Your task to perform on an android device: Open battery settings Image 0: 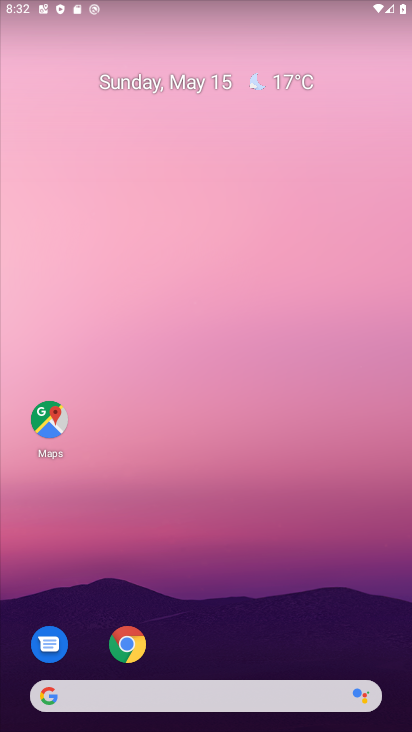
Step 0: drag from (273, 706) to (190, 232)
Your task to perform on an android device: Open battery settings Image 1: 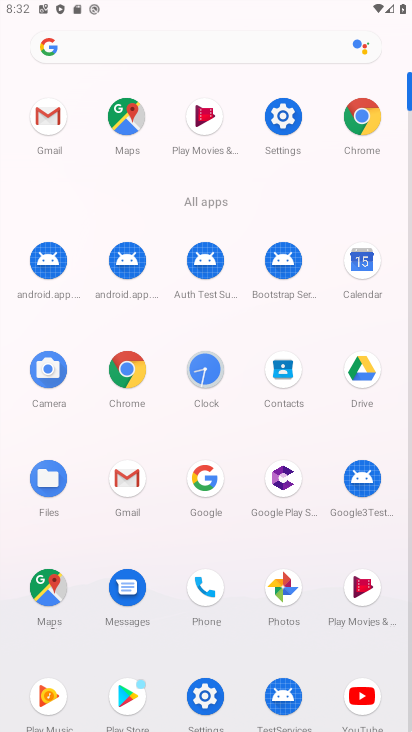
Step 1: click (290, 122)
Your task to perform on an android device: Open battery settings Image 2: 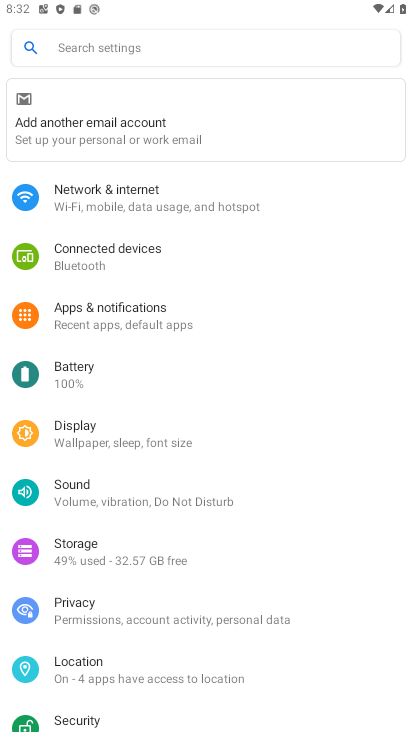
Step 2: click (162, 40)
Your task to perform on an android device: Open battery settings Image 3: 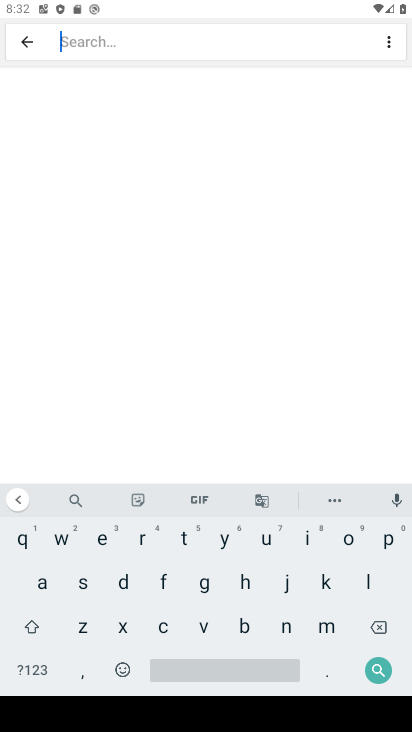
Step 3: click (247, 622)
Your task to perform on an android device: Open battery settings Image 4: 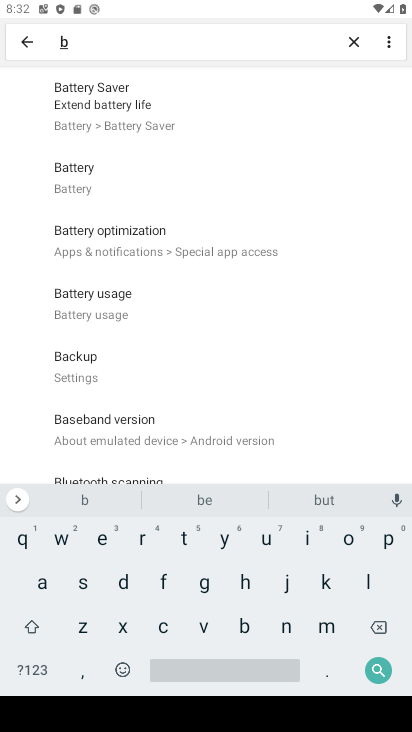
Step 4: click (30, 573)
Your task to perform on an android device: Open battery settings Image 5: 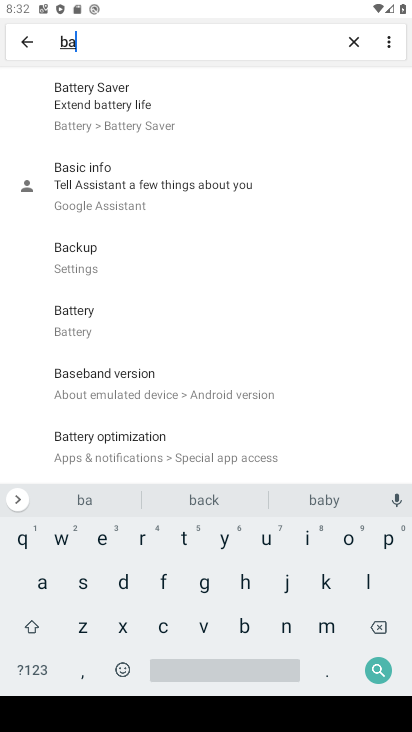
Step 5: click (119, 300)
Your task to perform on an android device: Open battery settings Image 6: 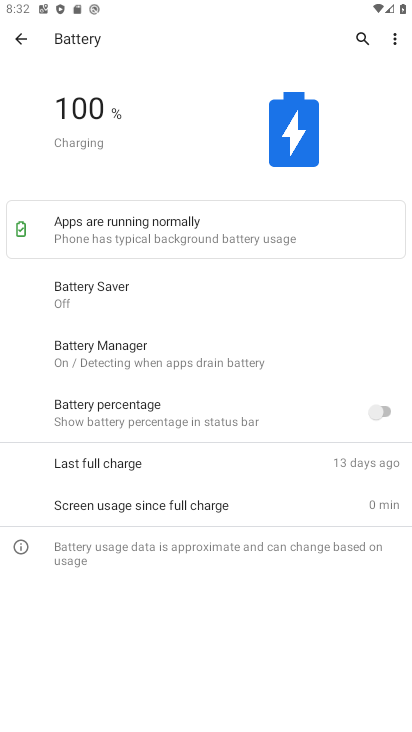
Step 6: task complete